Your task to perform on an android device: Go to eBay Image 0: 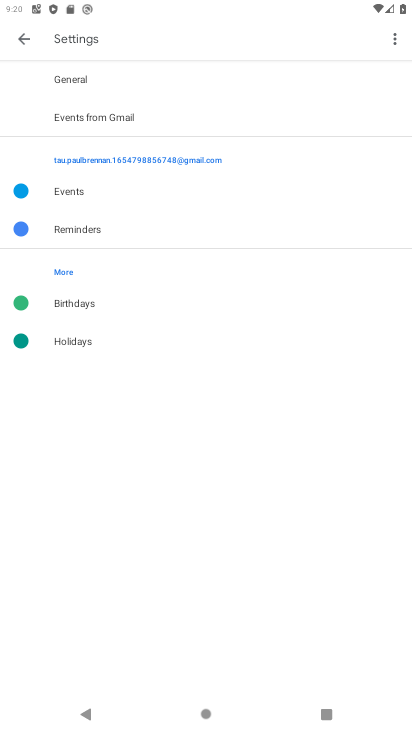
Step 0: click (27, 36)
Your task to perform on an android device: Go to eBay Image 1: 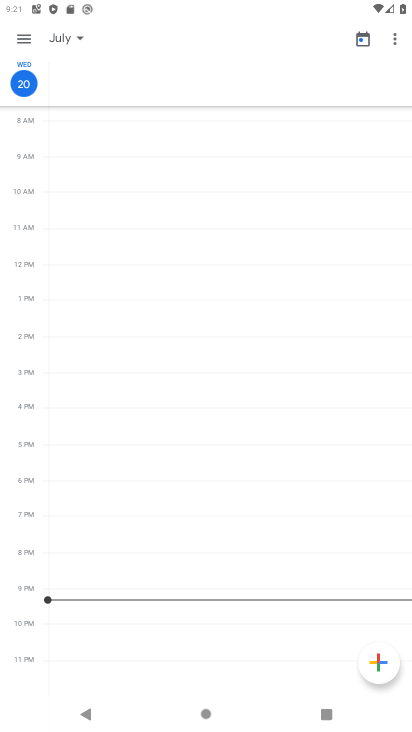
Step 1: press home button
Your task to perform on an android device: Go to eBay Image 2: 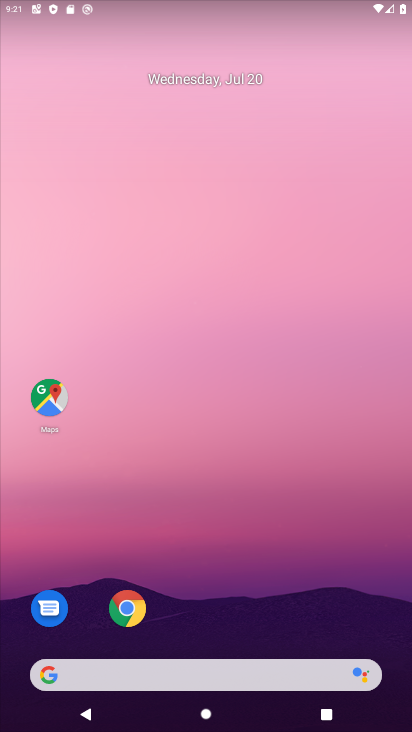
Step 2: click (286, 673)
Your task to perform on an android device: Go to eBay Image 3: 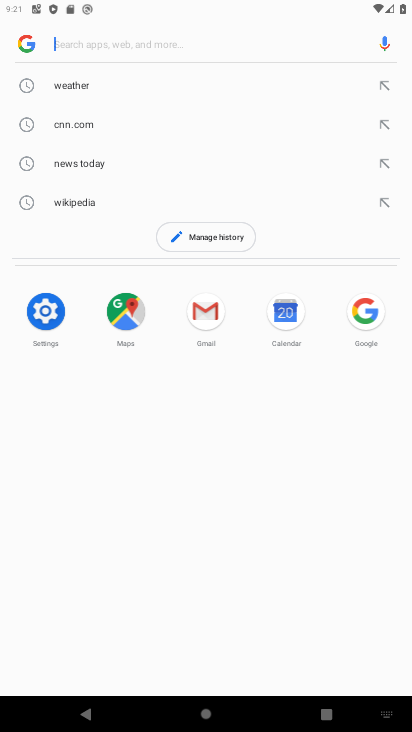
Step 3: type "ebay"
Your task to perform on an android device: Go to eBay Image 4: 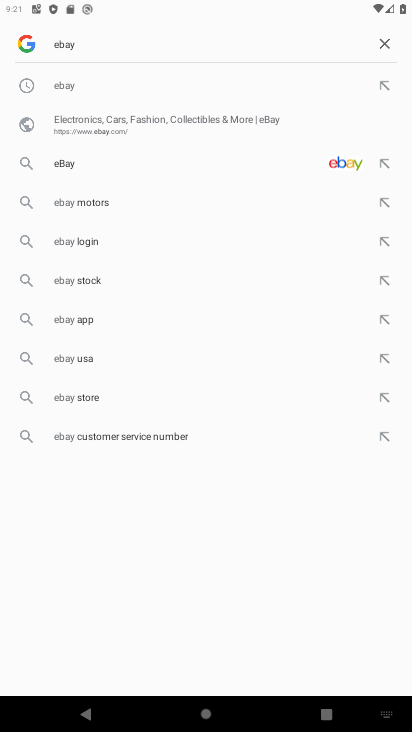
Step 4: click (216, 127)
Your task to perform on an android device: Go to eBay Image 5: 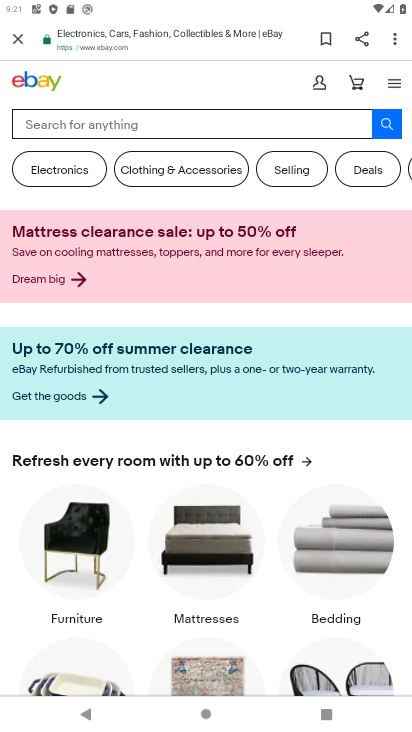
Step 5: task complete